Your task to perform on an android device: change notifications settings Image 0: 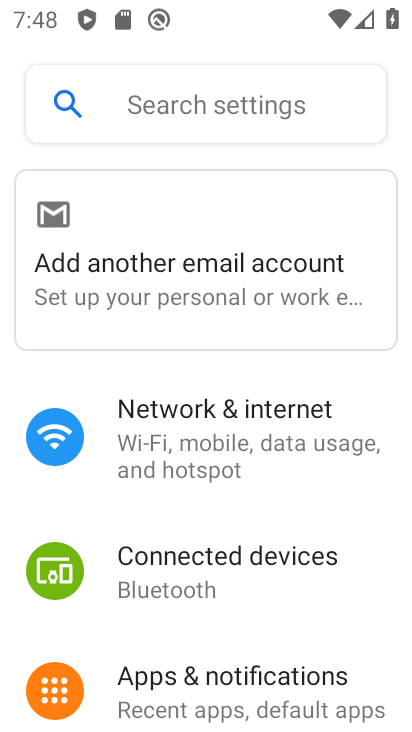
Step 0: press home button
Your task to perform on an android device: change notifications settings Image 1: 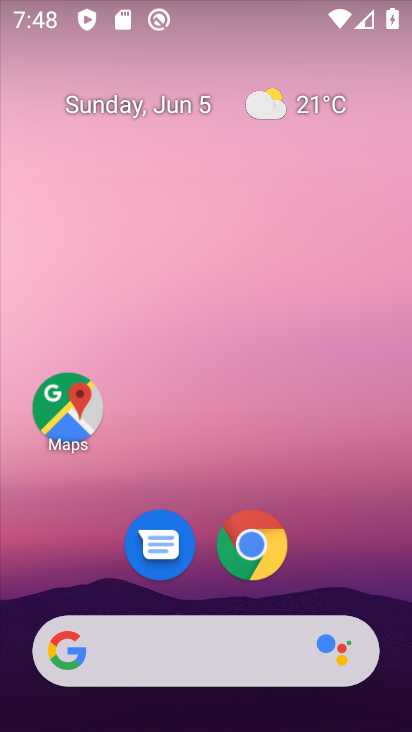
Step 1: drag from (194, 503) to (212, 73)
Your task to perform on an android device: change notifications settings Image 2: 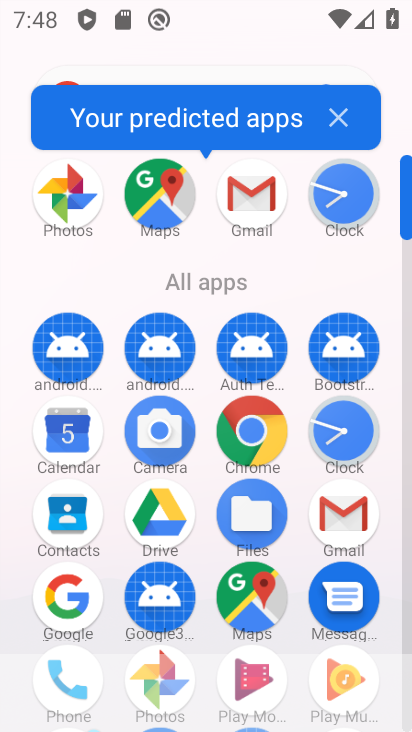
Step 2: drag from (202, 558) to (234, 259)
Your task to perform on an android device: change notifications settings Image 3: 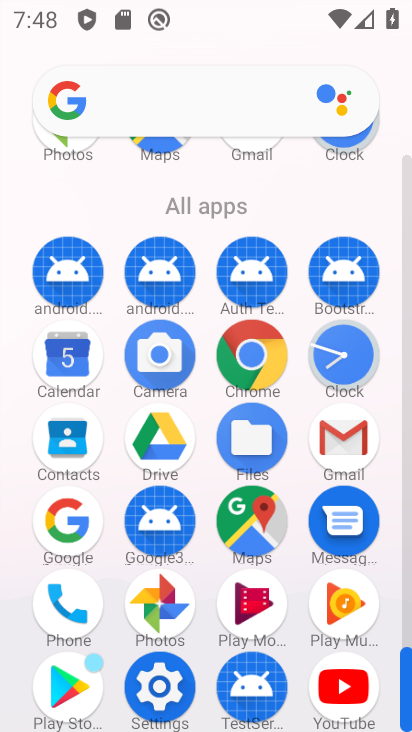
Step 3: click (158, 682)
Your task to perform on an android device: change notifications settings Image 4: 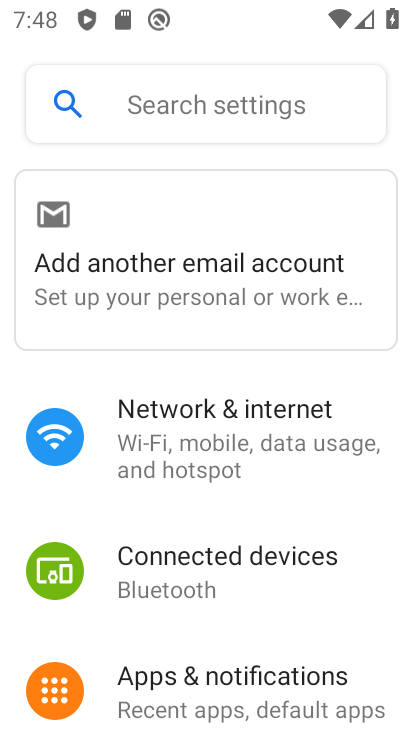
Step 4: click (209, 704)
Your task to perform on an android device: change notifications settings Image 5: 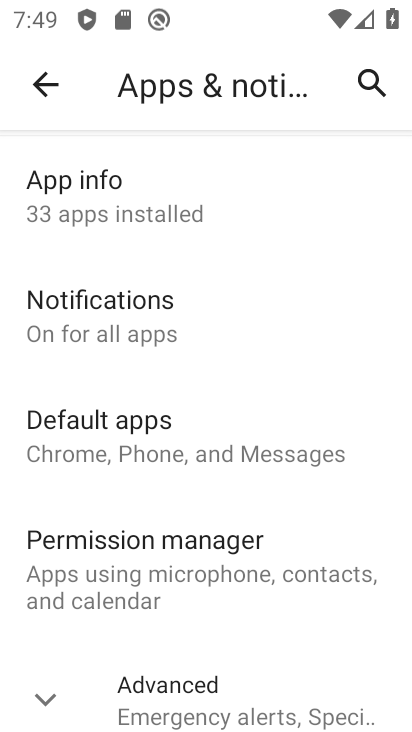
Step 5: click (207, 335)
Your task to perform on an android device: change notifications settings Image 6: 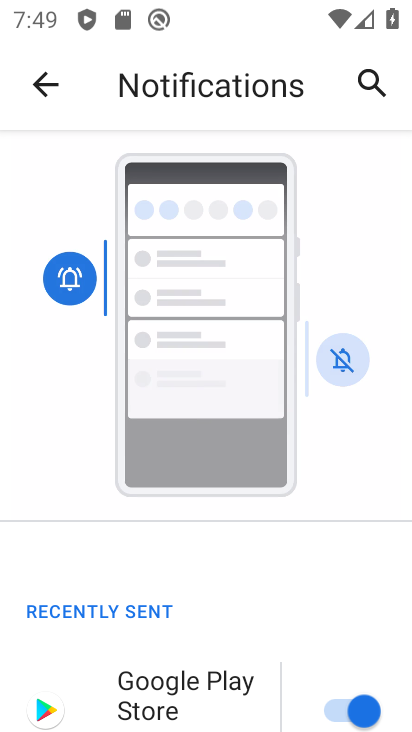
Step 6: click (349, 695)
Your task to perform on an android device: change notifications settings Image 7: 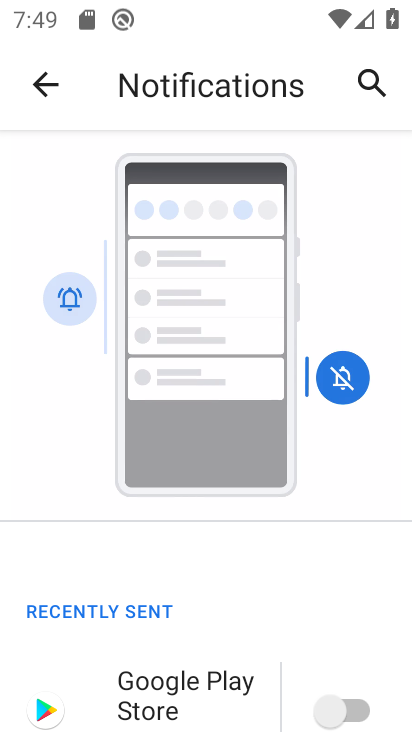
Step 7: task complete